Your task to perform on an android device: What is the news today? Image 0: 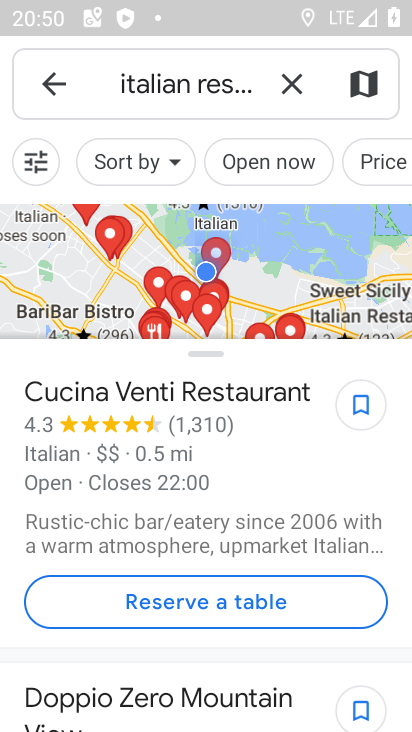
Step 0: press home button
Your task to perform on an android device: What is the news today? Image 1: 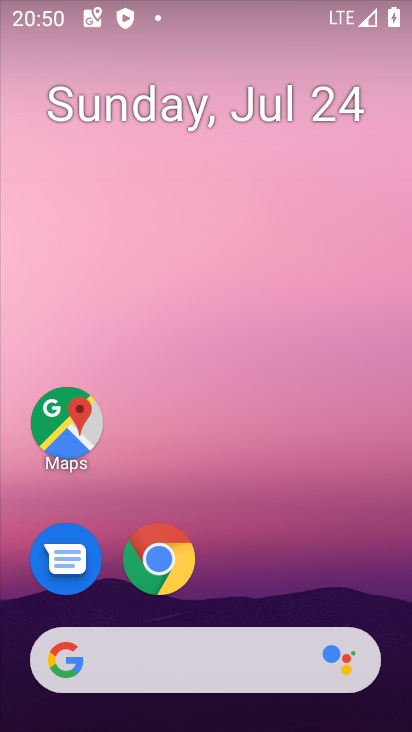
Step 1: task complete